Your task to perform on an android device: stop showing notifications on the lock screen Image 0: 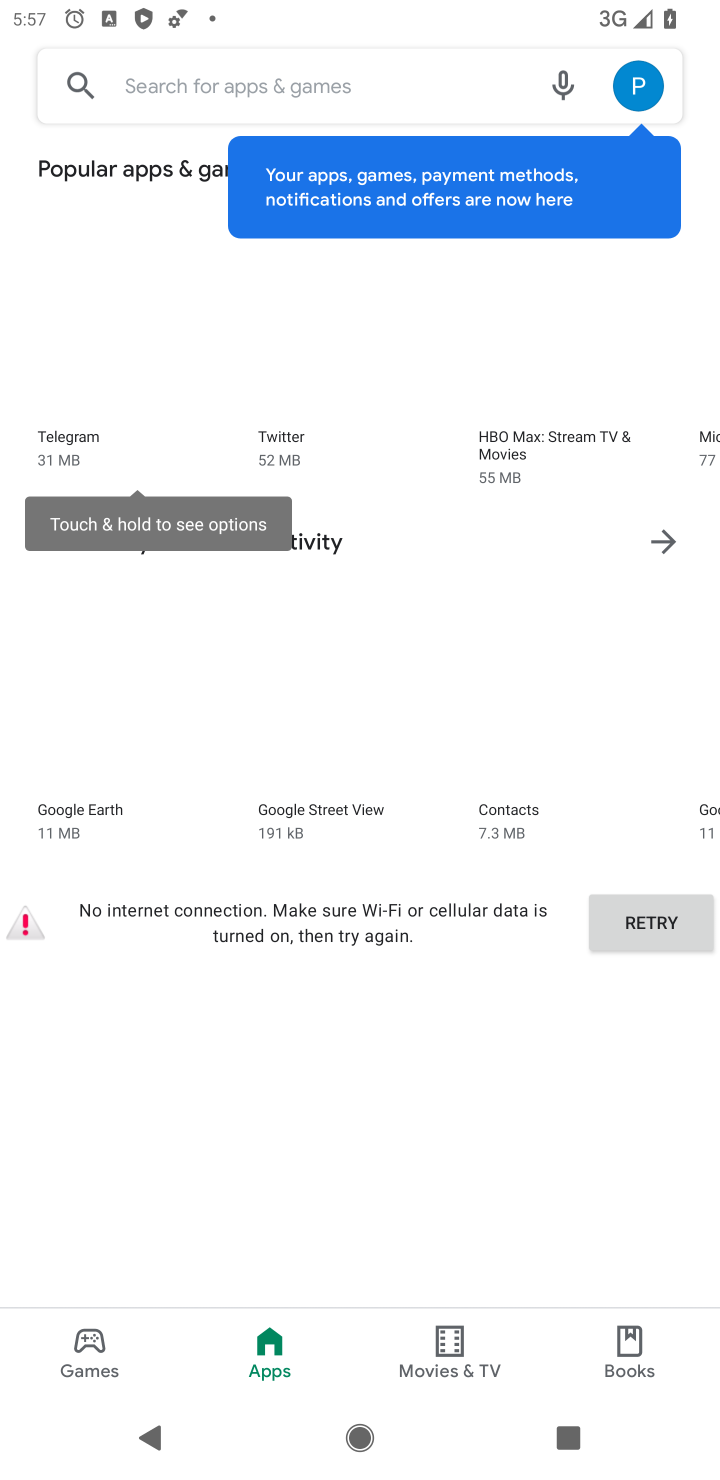
Step 0: press home button
Your task to perform on an android device: stop showing notifications on the lock screen Image 1: 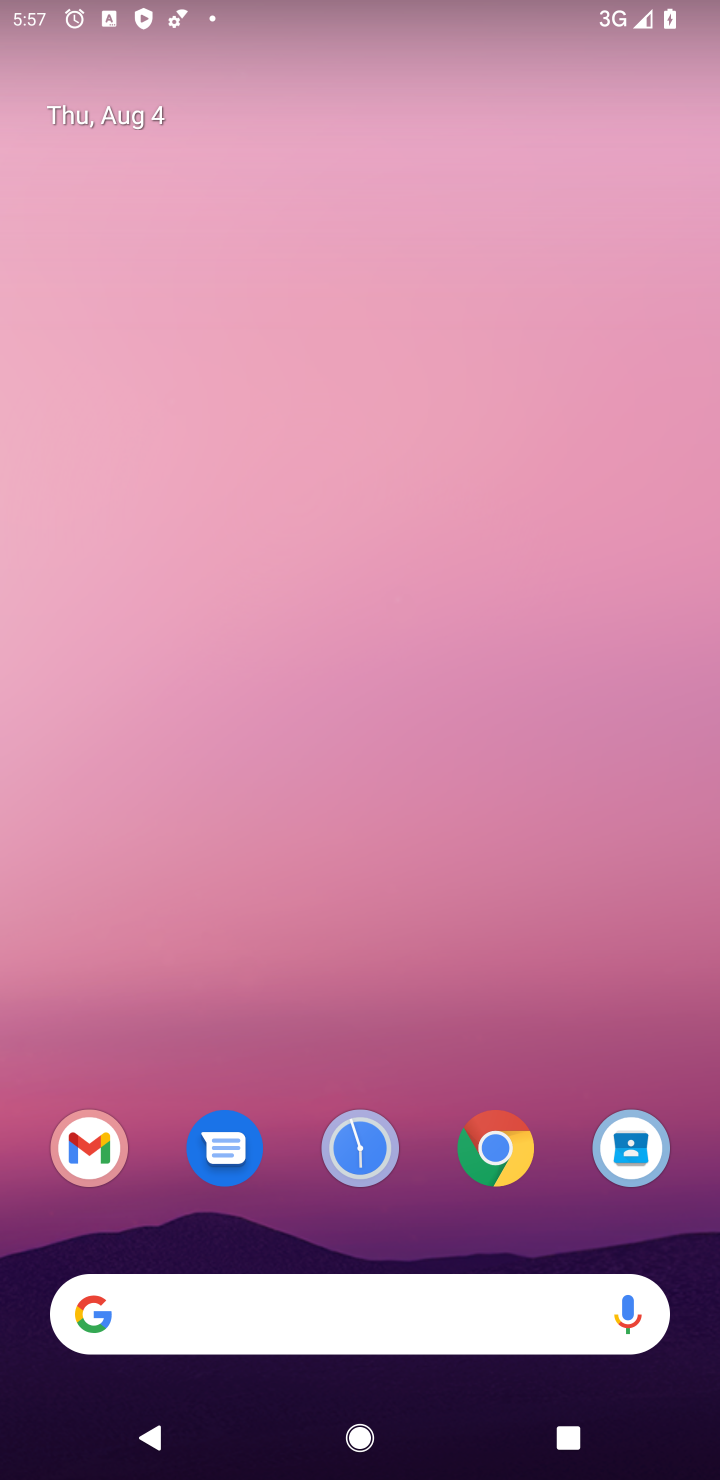
Step 1: drag from (556, 1194) to (447, 332)
Your task to perform on an android device: stop showing notifications on the lock screen Image 2: 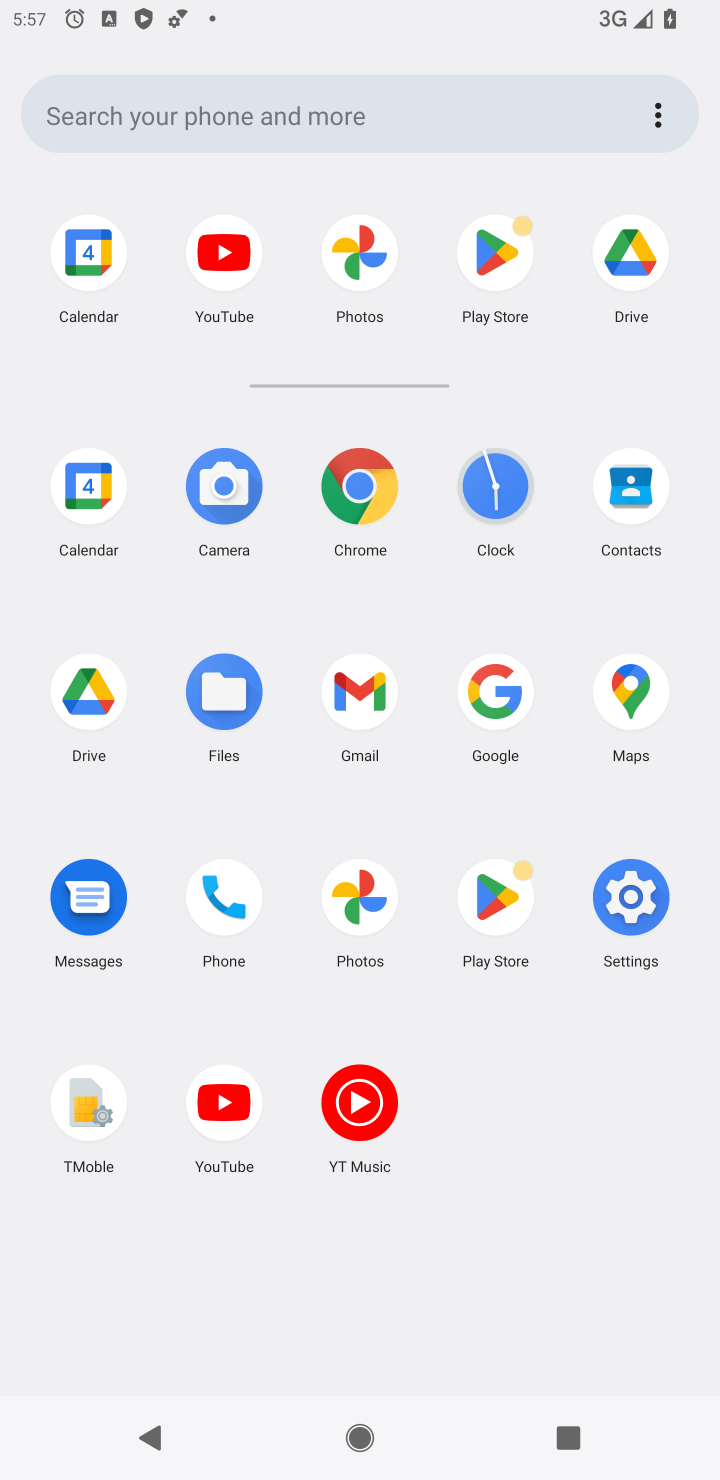
Step 2: click (620, 909)
Your task to perform on an android device: stop showing notifications on the lock screen Image 3: 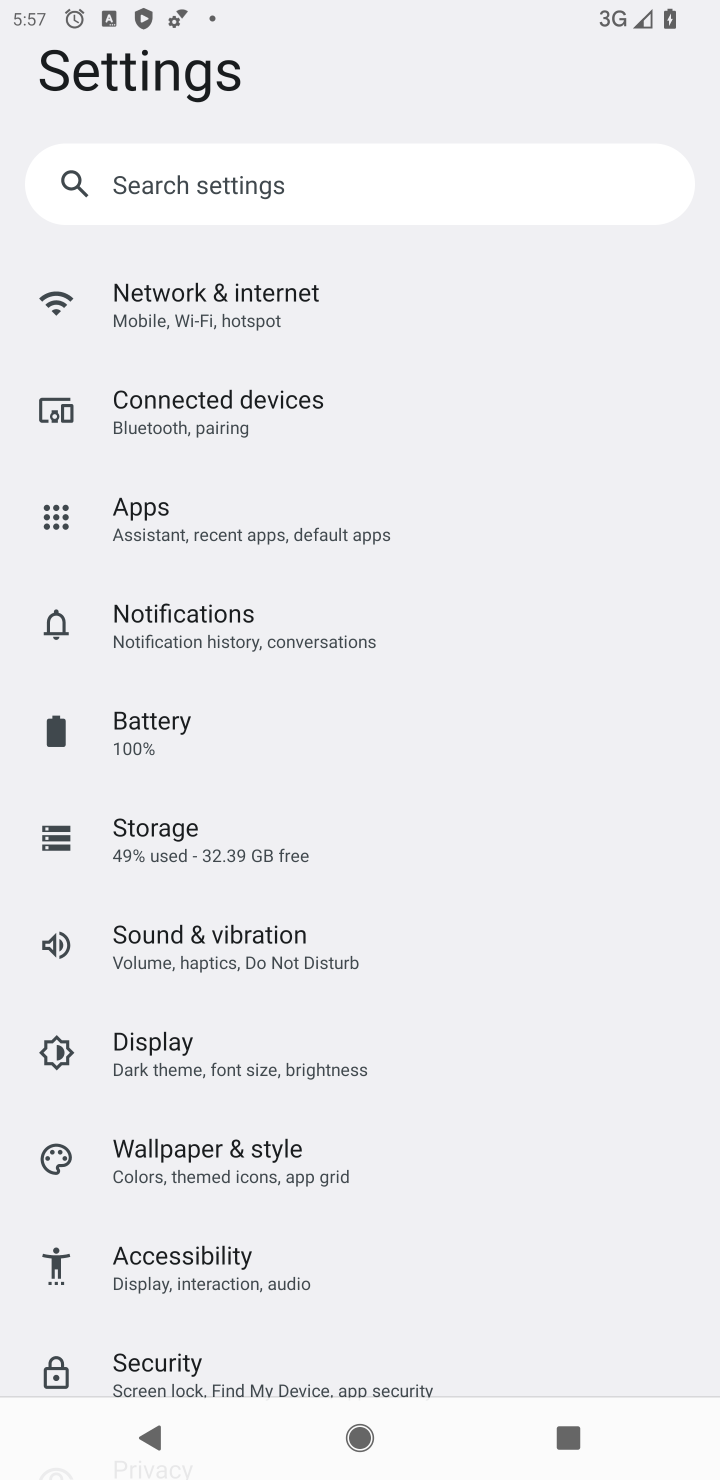
Step 3: click (226, 620)
Your task to perform on an android device: stop showing notifications on the lock screen Image 4: 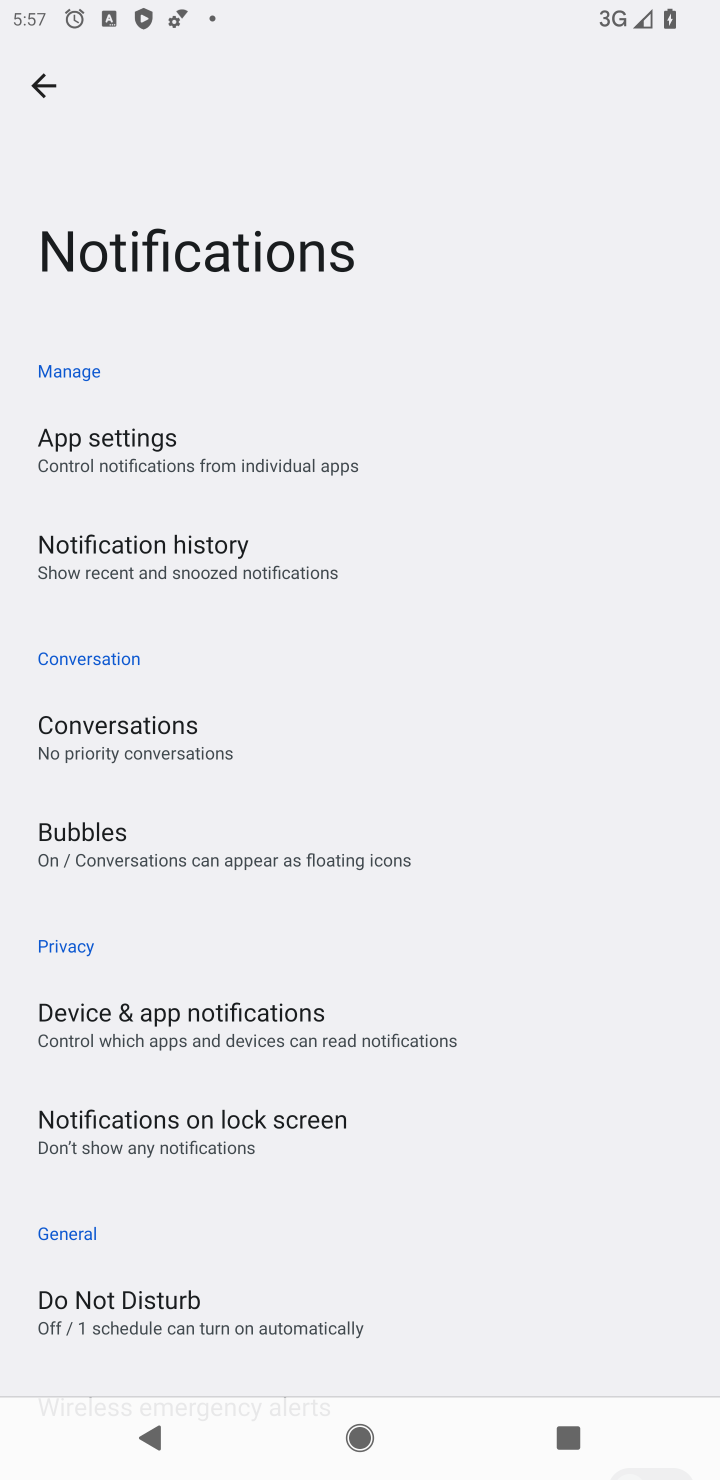
Step 4: drag from (383, 1200) to (328, 377)
Your task to perform on an android device: stop showing notifications on the lock screen Image 5: 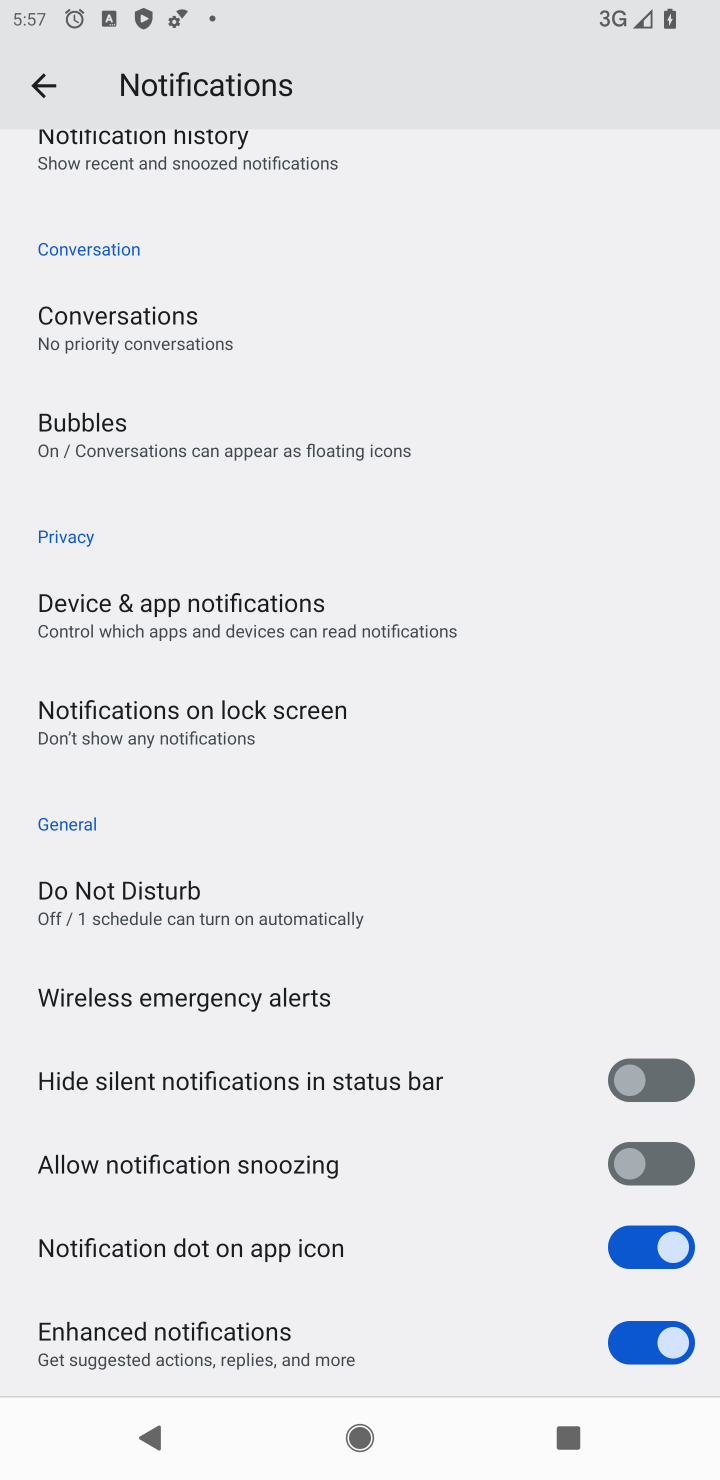
Step 5: click (184, 718)
Your task to perform on an android device: stop showing notifications on the lock screen Image 6: 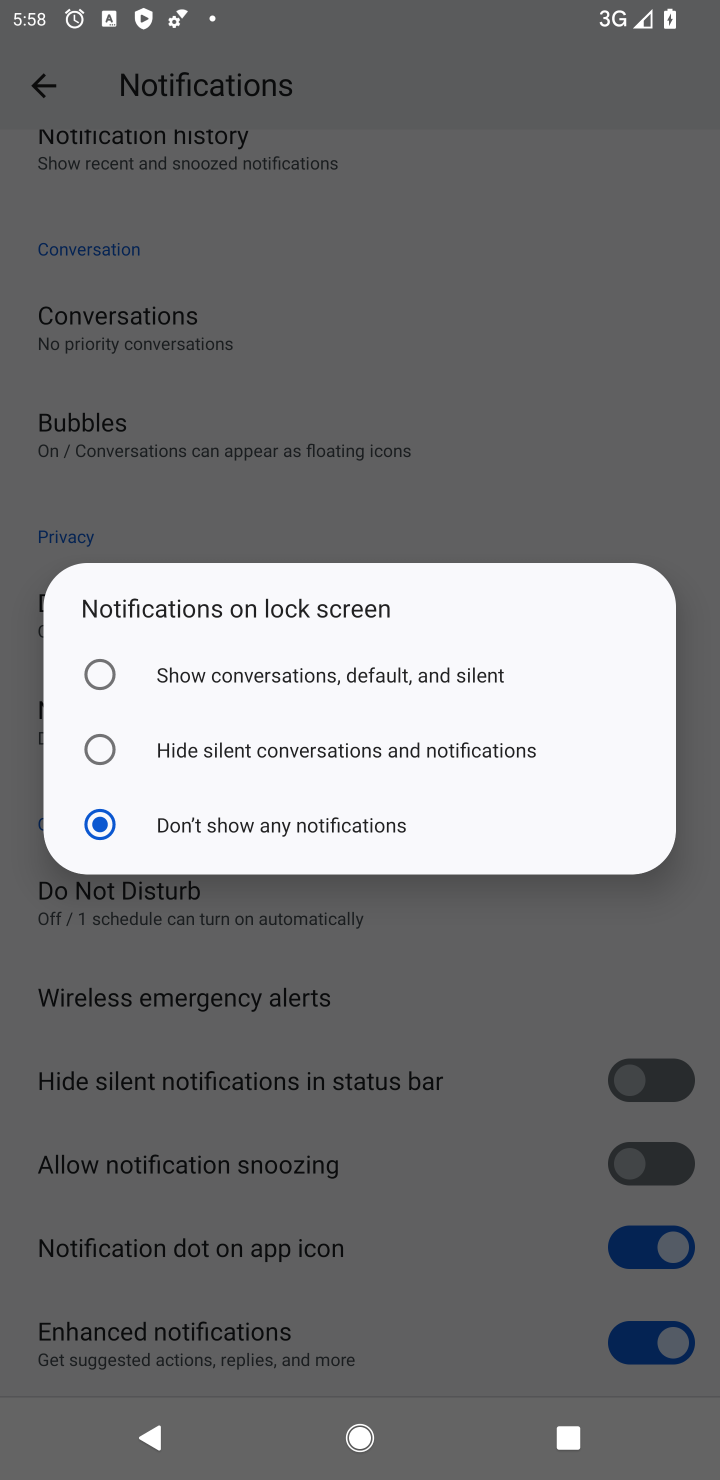
Step 6: task complete